Your task to perform on an android device: Go to accessibility settings Image 0: 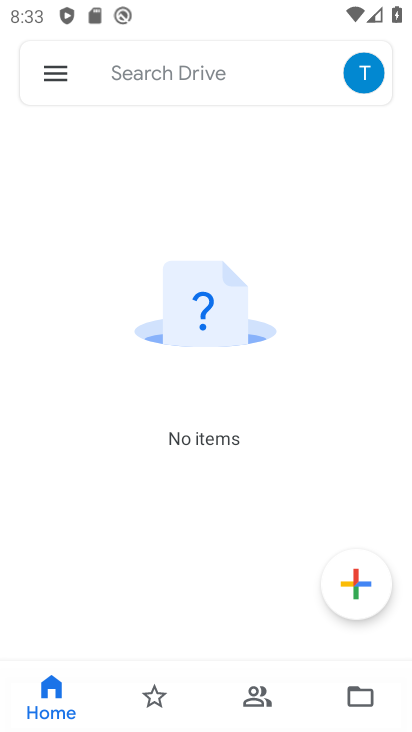
Step 0: press home button
Your task to perform on an android device: Go to accessibility settings Image 1: 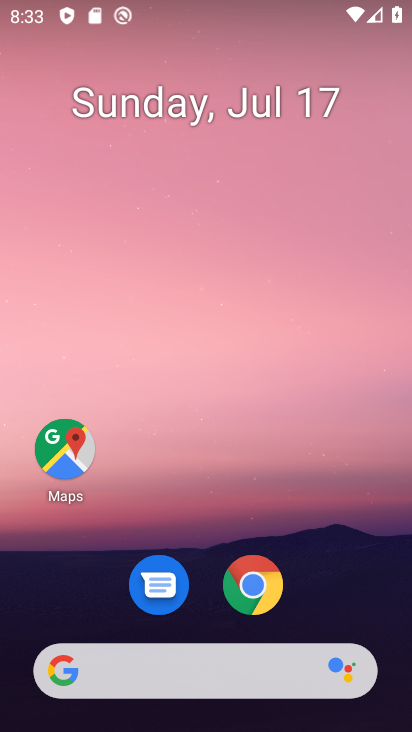
Step 1: drag from (221, 522) to (312, 136)
Your task to perform on an android device: Go to accessibility settings Image 2: 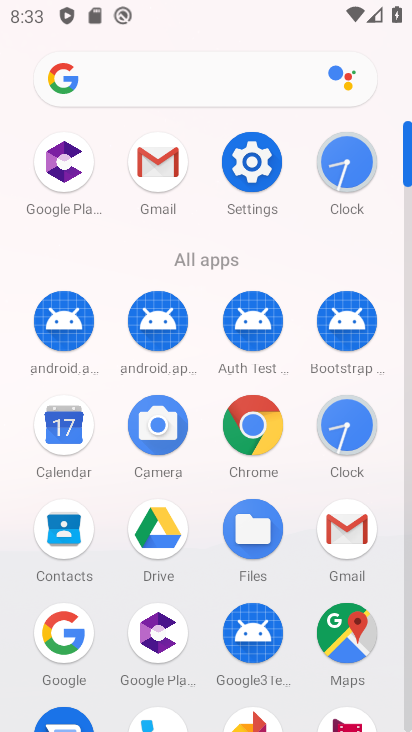
Step 2: click (240, 158)
Your task to perform on an android device: Go to accessibility settings Image 3: 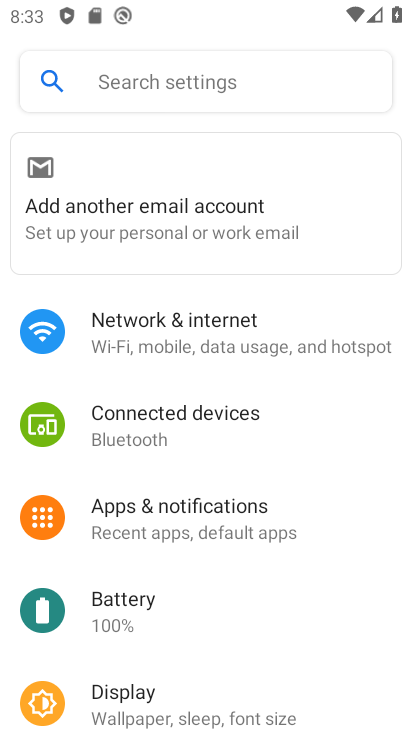
Step 3: drag from (236, 644) to (392, 127)
Your task to perform on an android device: Go to accessibility settings Image 4: 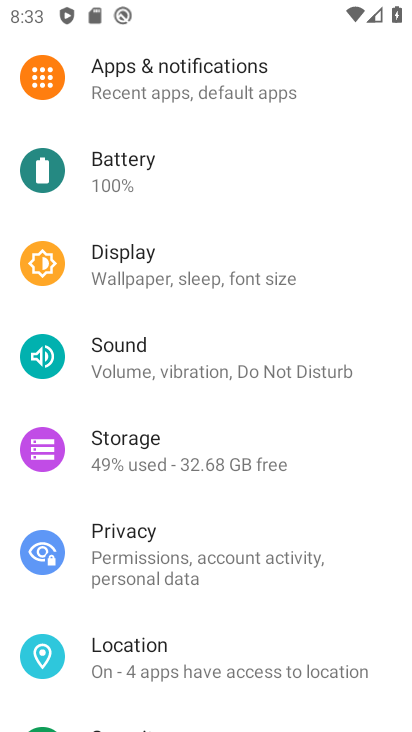
Step 4: drag from (228, 649) to (393, 65)
Your task to perform on an android device: Go to accessibility settings Image 5: 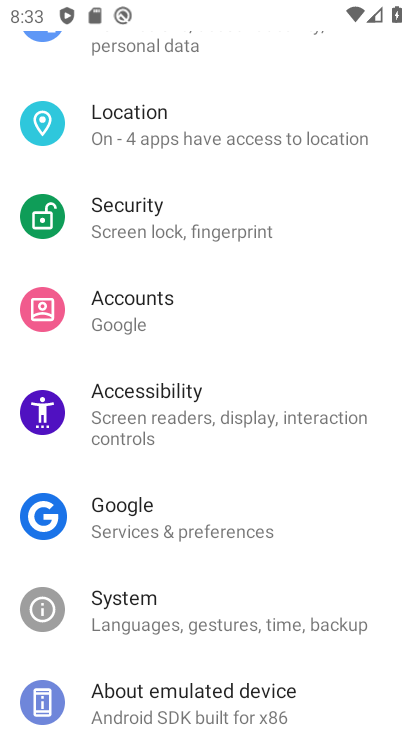
Step 5: click (143, 420)
Your task to perform on an android device: Go to accessibility settings Image 6: 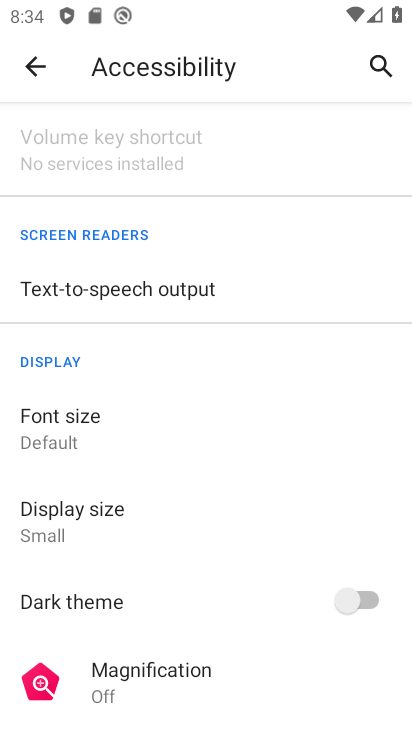
Step 6: task complete